Your task to perform on an android device: Play the last video I watched on Youtube Image 0: 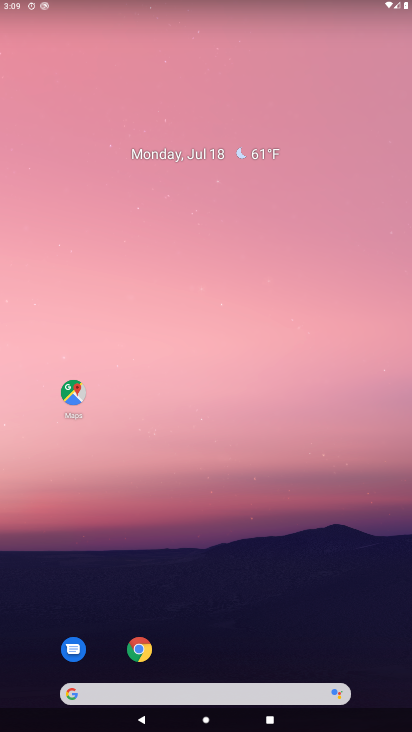
Step 0: drag from (62, 659) to (247, 148)
Your task to perform on an android device: Play the last video I watched on Youtube Image 1: 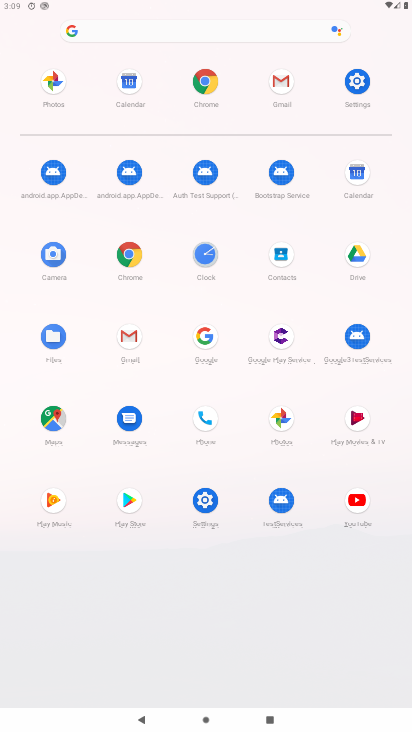
Step 1: click (353, 504)
Your task to perform on an android device: Play the last video I watched on Youtube Image 2: 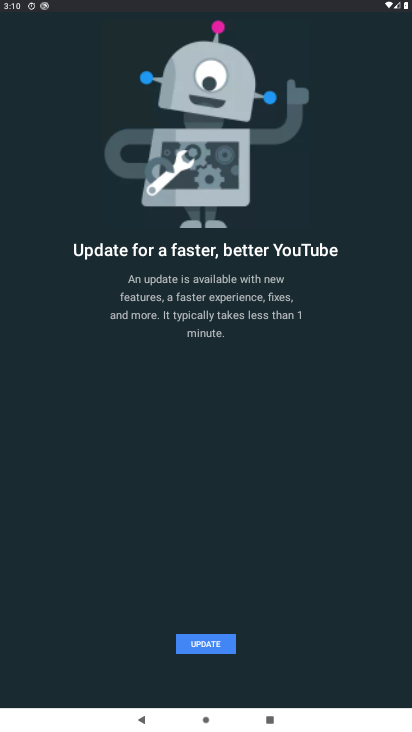
Step 2: press home button
Your task to perform on an android device: Play the last video I watched on Youtube Image 3: 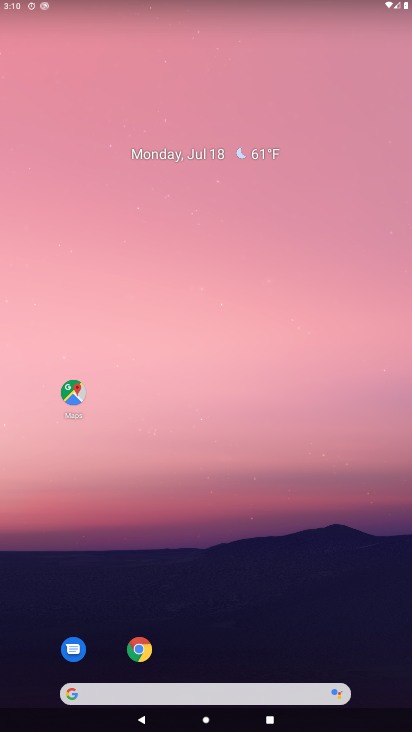
Step 3: drag from (172, 439) to (325, 85)
Your task to perform on an android device: Play the last video I watched on Youtube Image 4: 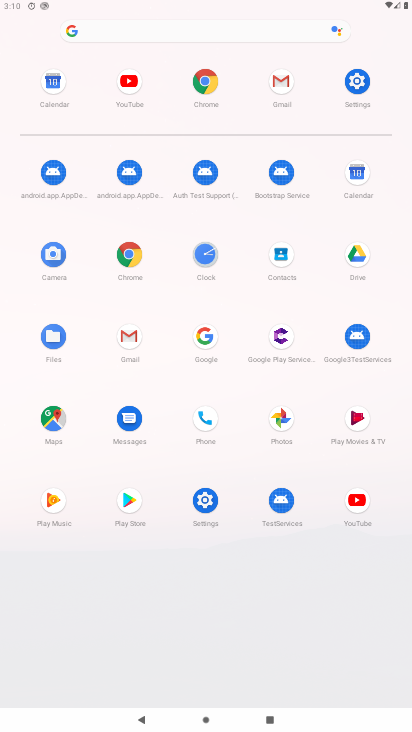
Step 4: click (364, 492)
Your task to perform on an android device: Play the last video I watched on Youtube Image 5: 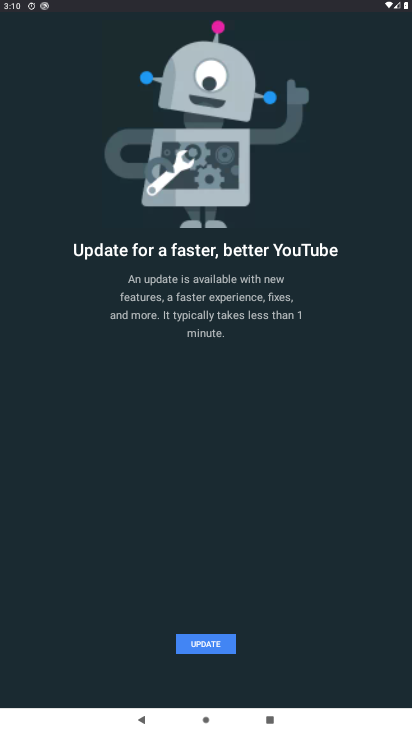
Step 5: task complete